Your task to perform on an android device: Show the shopping cart on costco.com. Search for logitech g pro on costco.com, select the first entry, and add it to the cart. Image 0: 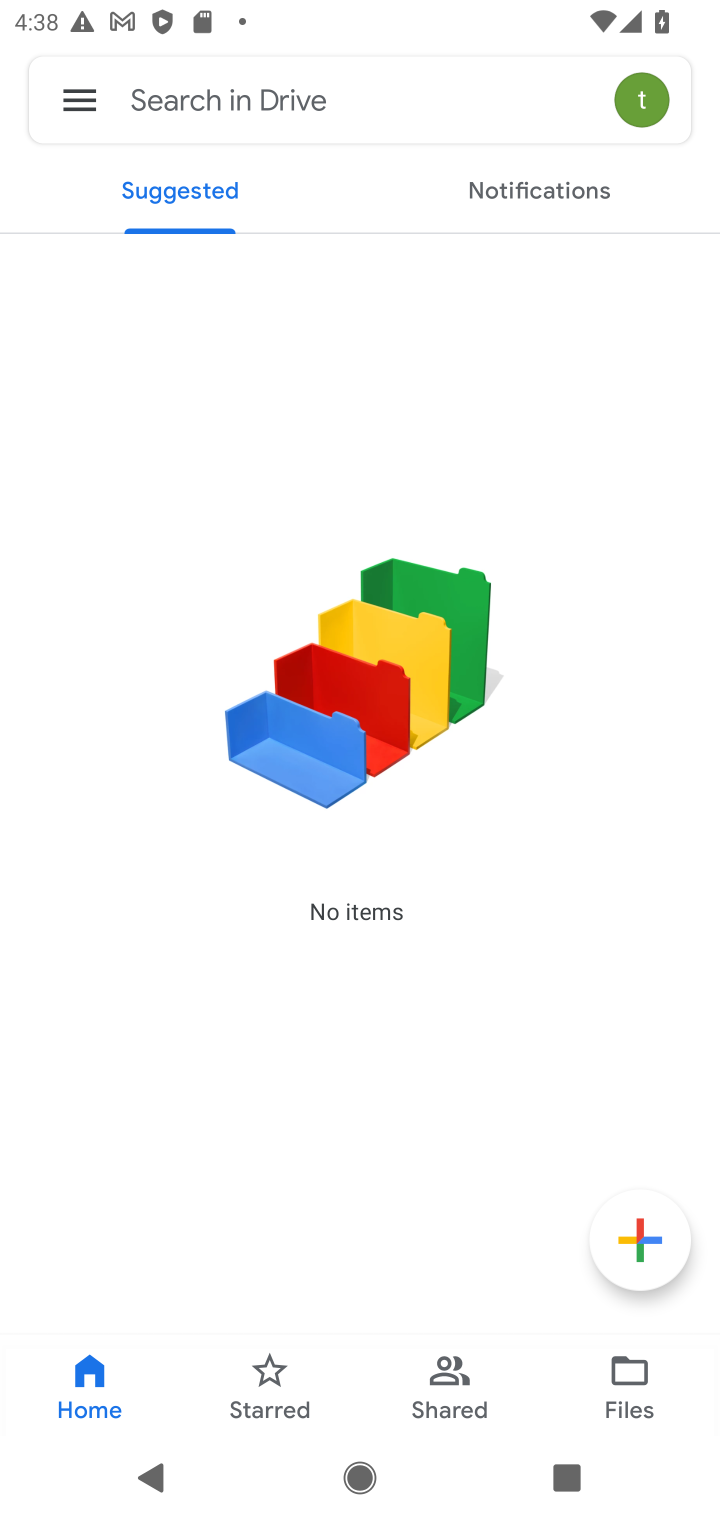
Step 0: press home button
Your task to perform on an android device: Show the shopping cart on costco.com. Search for logitech g pro on costco.com, select the first entry, and add it to the cart. Image 1: 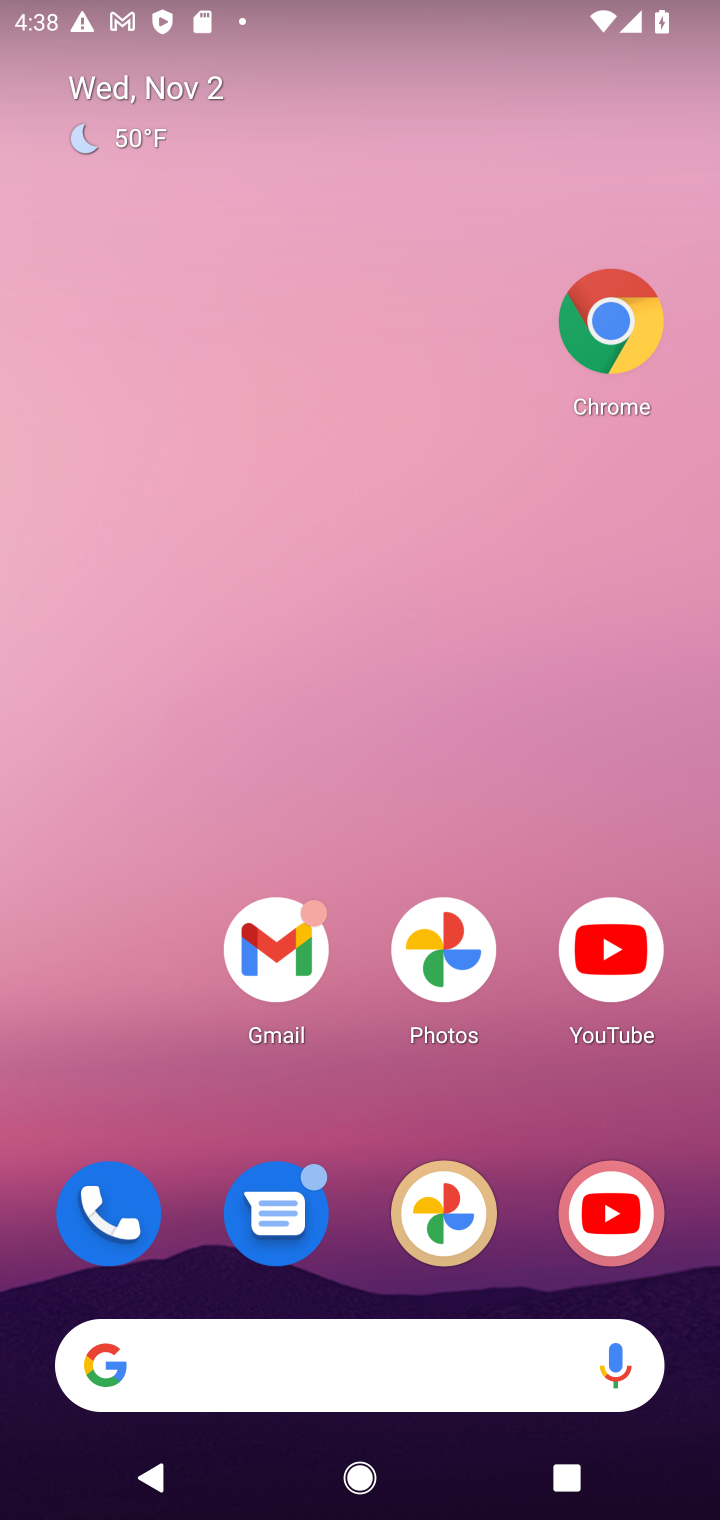
Step 1: drag from (376, 1296) to (230, 6)
Your task to perform on an android device: Show the shopping cart on costco.com. Search for logitech g pro on costco.com, select the first entry, and add it to the cart. Image 2: 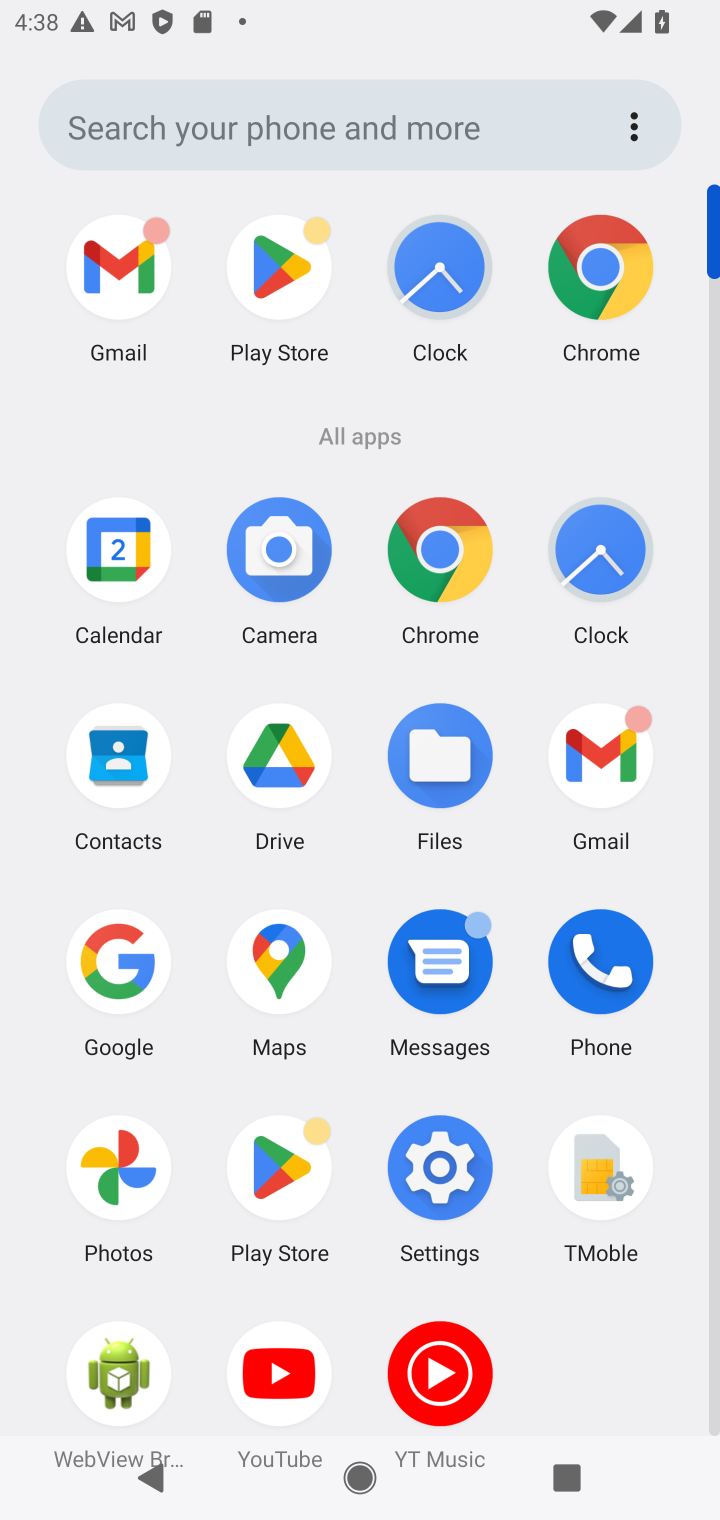
Step 2: click (133, 999)
Your task to perform on an android device: Show the shopping cart on costco.com. Search for logitech g pro on costco.com, select the first entry, and add it to the cart. Image 3: 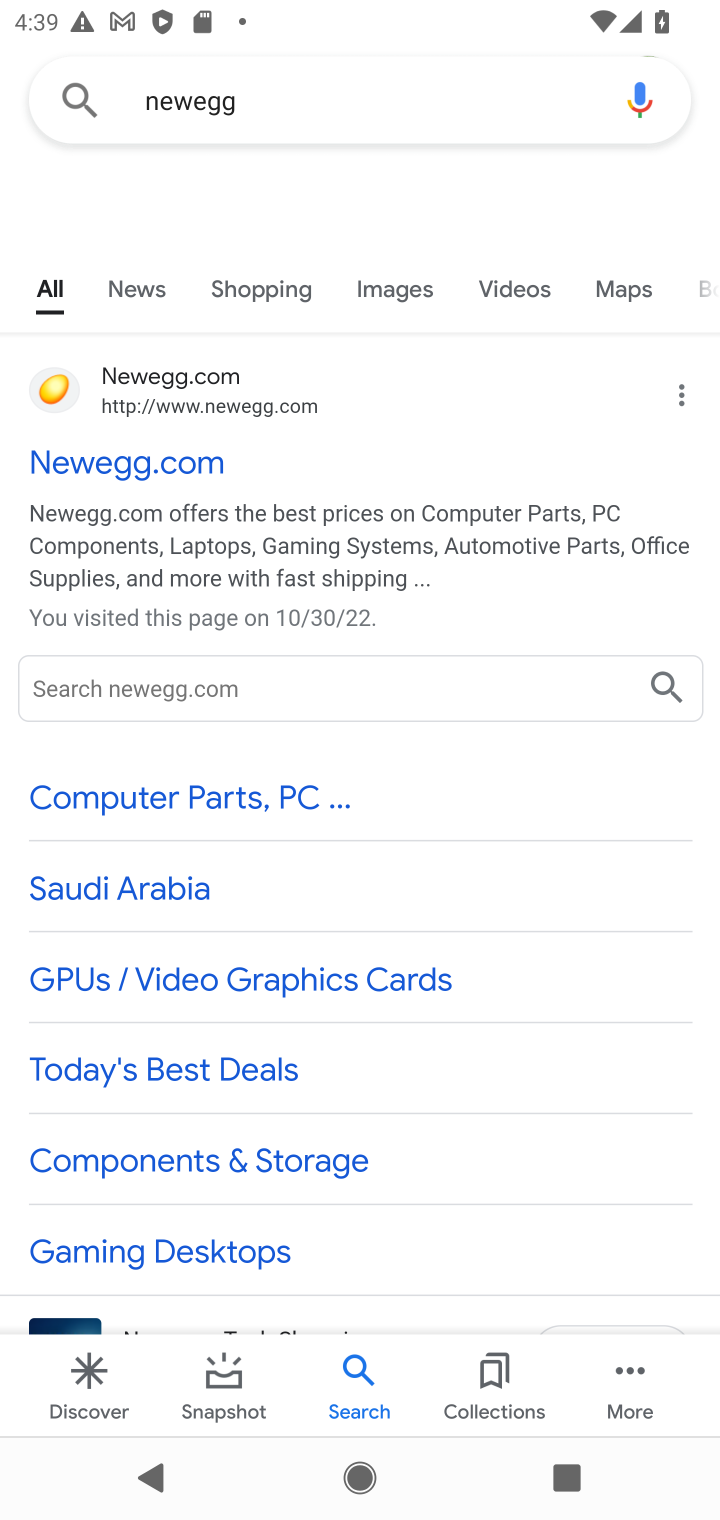
Step 3: click (454, 96)
Your task to perform on an android device: Show the shopping cart on costco.com. Search for logitech g pro on costco.com, select the first entry, and add it to the cart. Image 4: 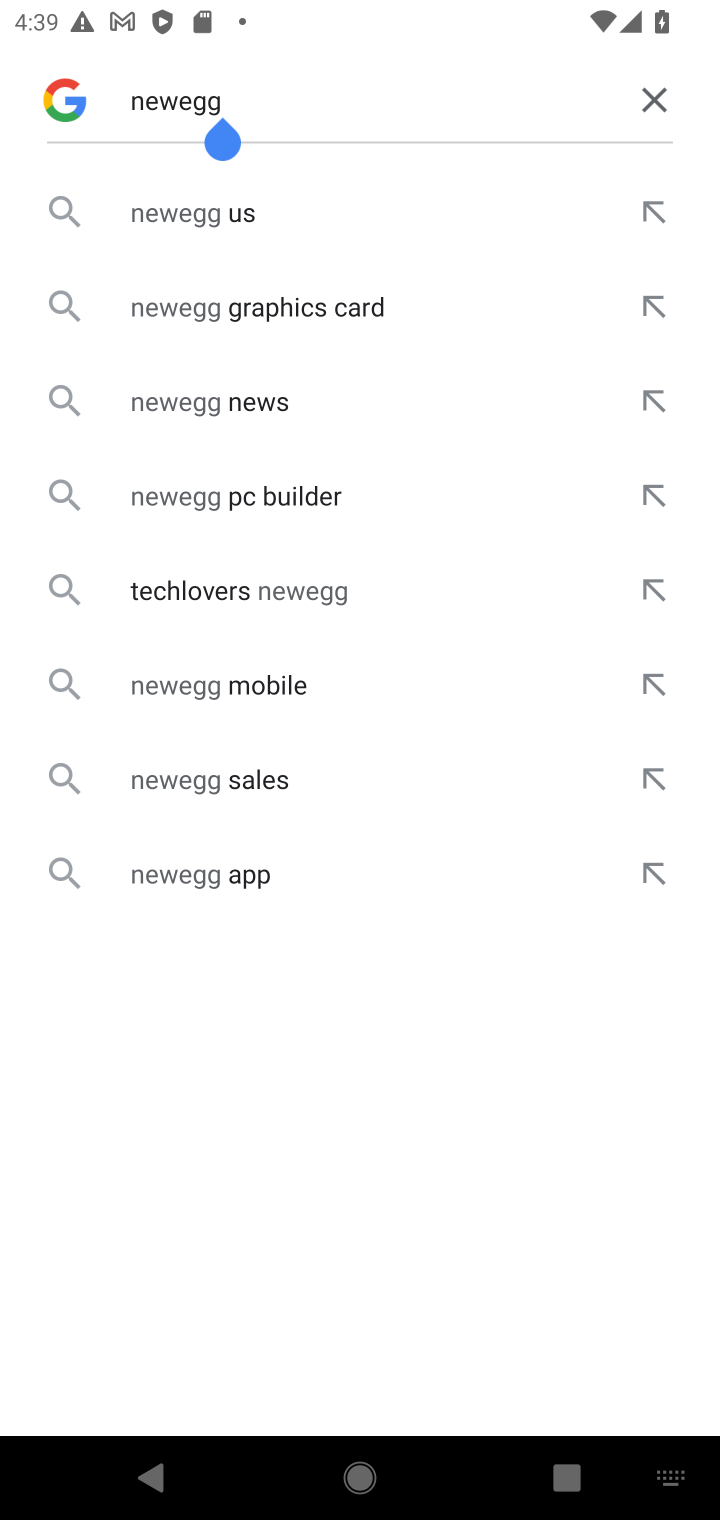
Step 4: click (666, 108)
Your task to perform on an android device: Show the shopping cart on costco.com. Search for logitech g pro on costco.com, select the first entry, and add it to the cart. Image 5: 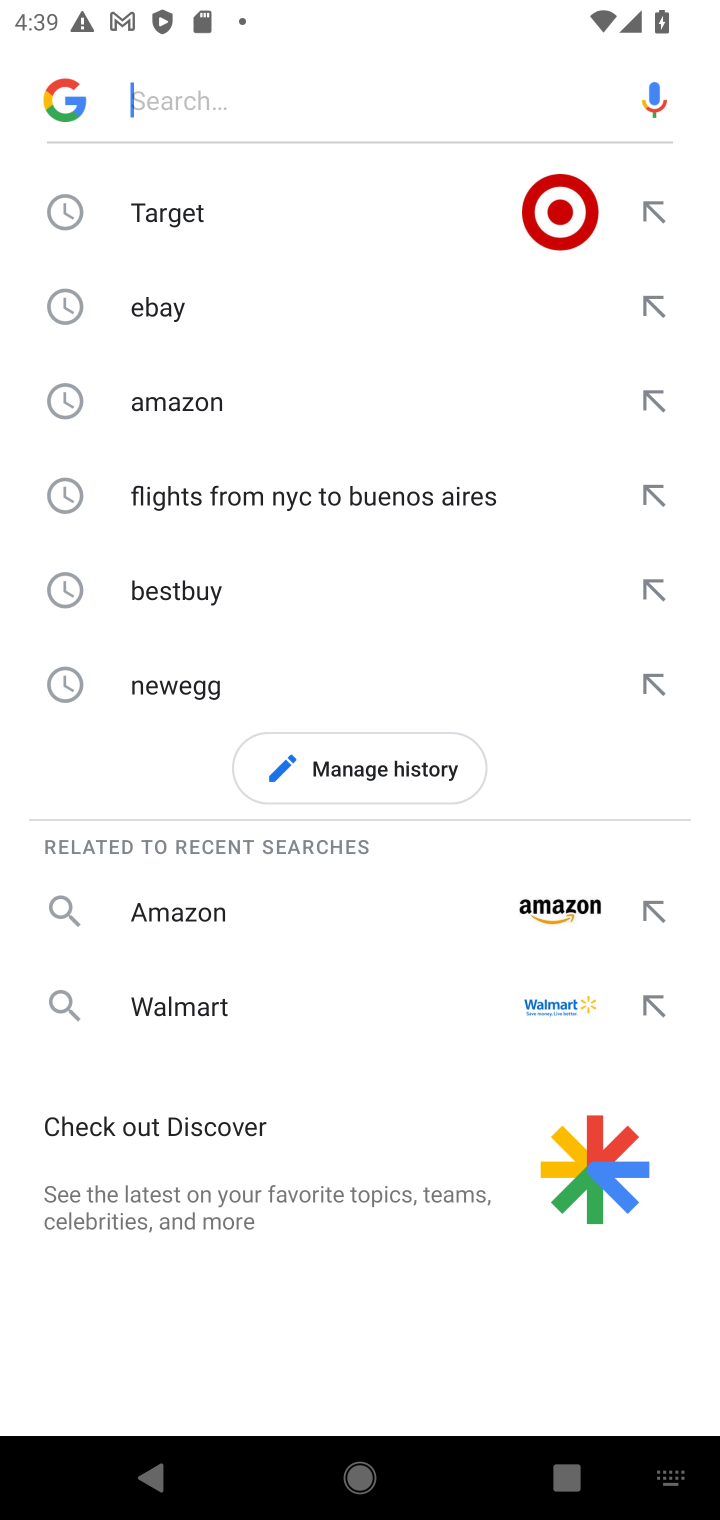
Step 5: type "costco.com"
Your task to perform on an android device: Show the shopping cart on costco.com. Search for logitech g pro on costco.com, select the first entry, and add it to the cart. Image 6: 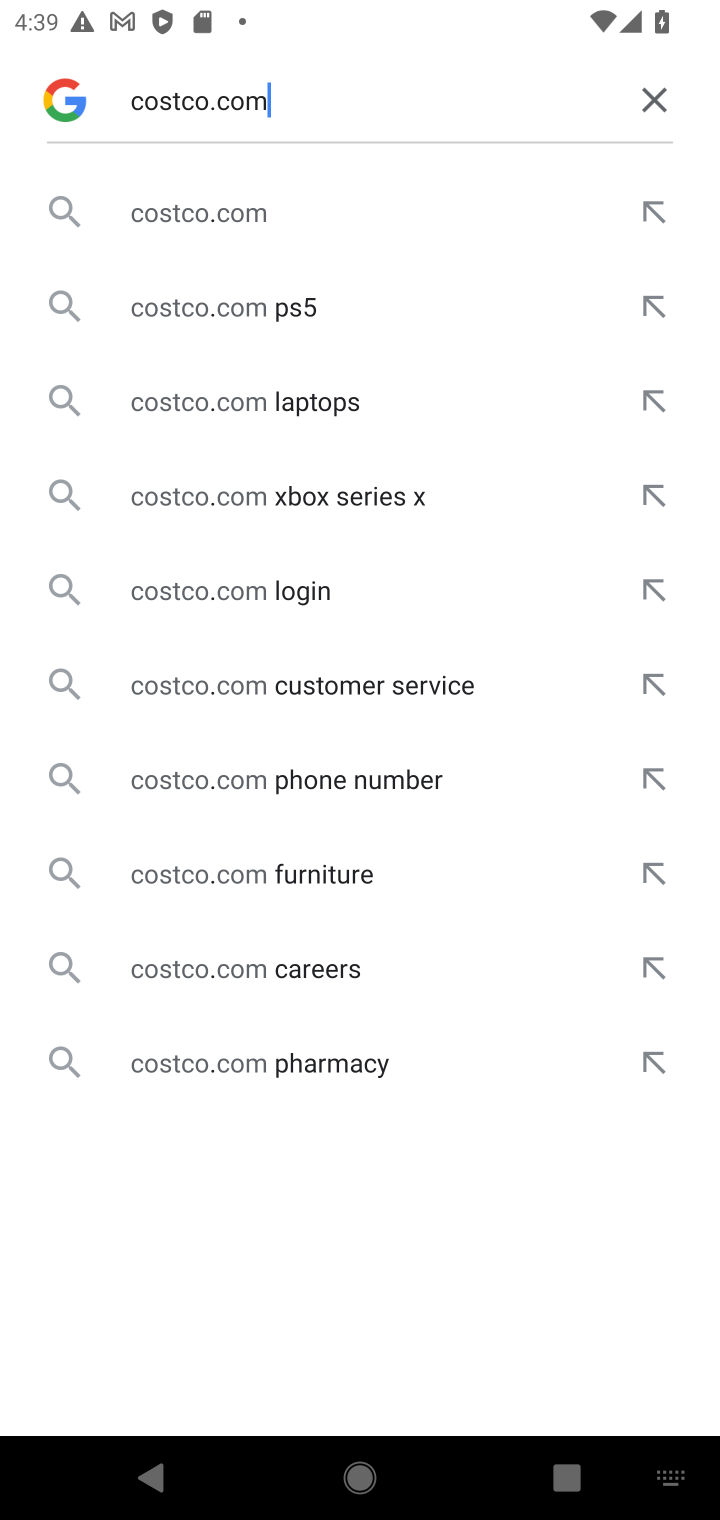
Step 6: click (375, 218)
Your task to perform on an android device: Show the shopping cart on costco.com. Search for logitech g pro on costco.com, select the first entry, and add it to the cart. Image 7: 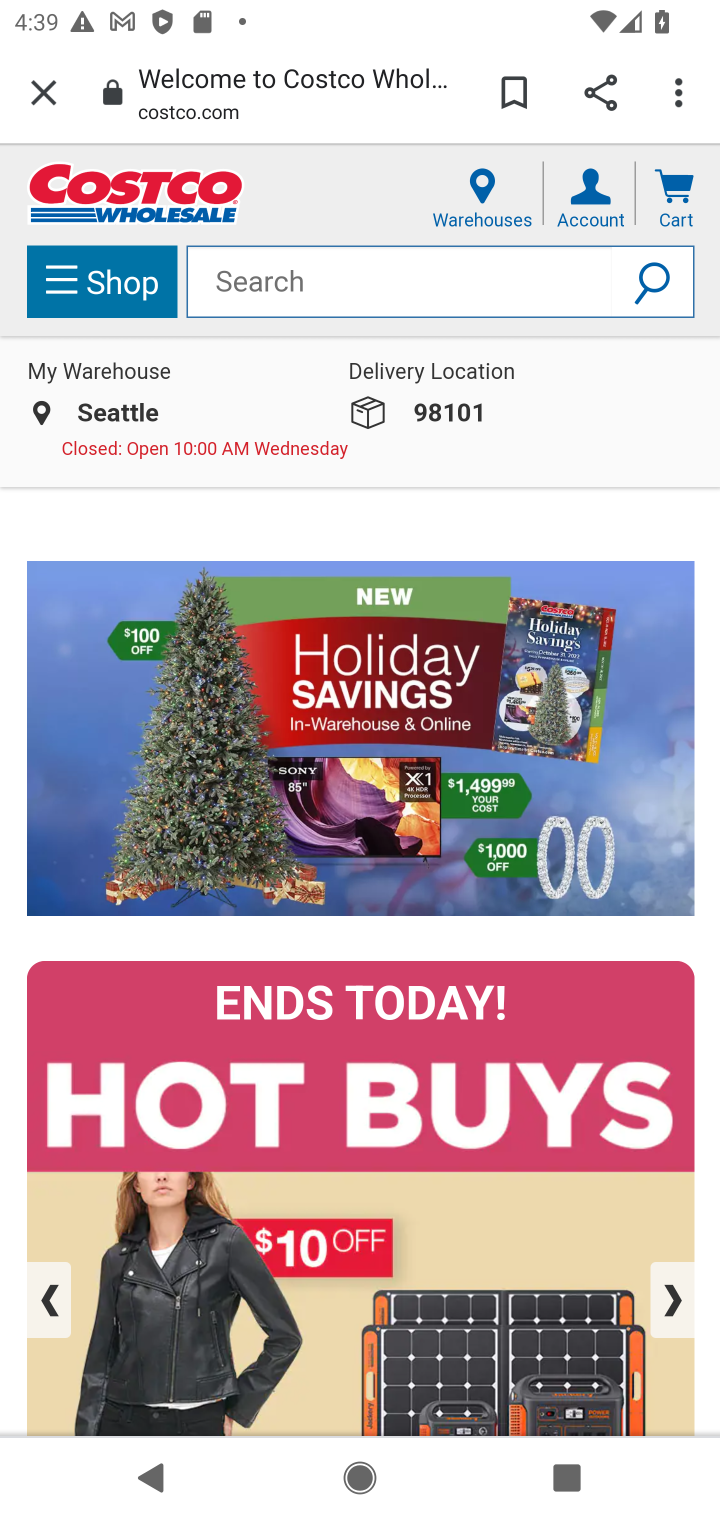
Step 7: click (380, 301)
Your task to perform on an android device: Show the shopping cart on costco.com. Search for logitech g pro on costco.com, select the first entry, and add it to the cart. Image 8: 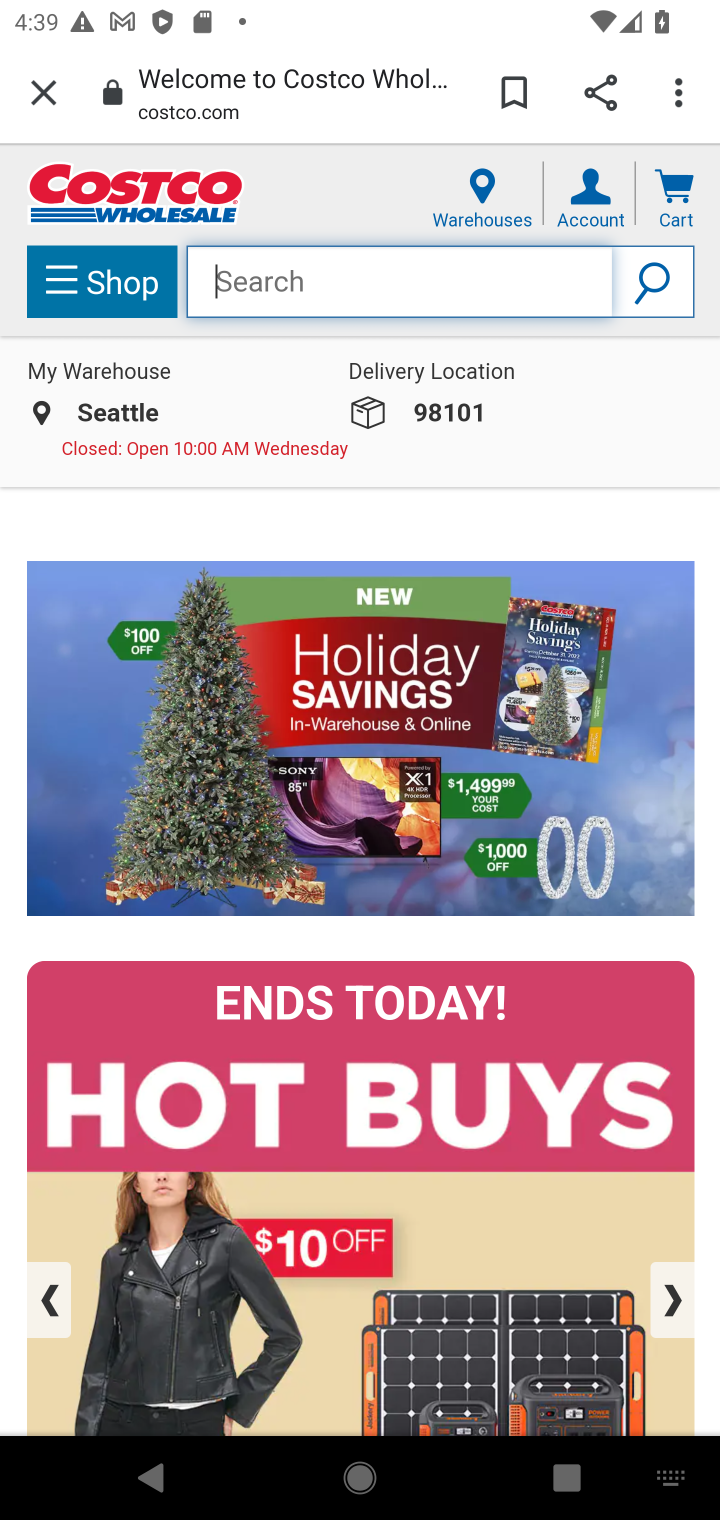
Step 8: type "logitech g pro"
Your task to perform on an android device: Show the shopping cart on costco.com. Search for logitech g pro on costco.com, select the first entry, and add it to the cart. Image 9: 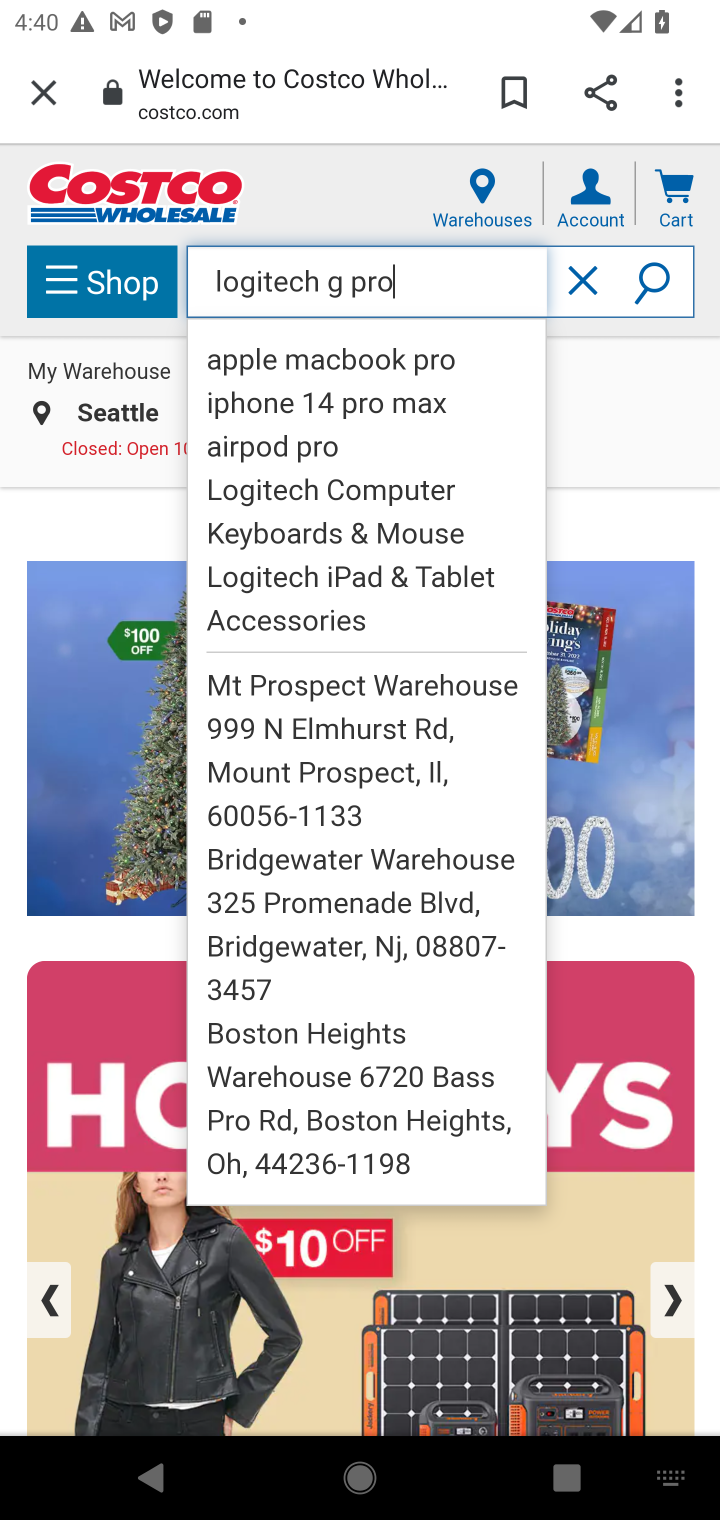
Step 9: task complete